Your task to perform on an android device: find photos in the google photos app Image 0: 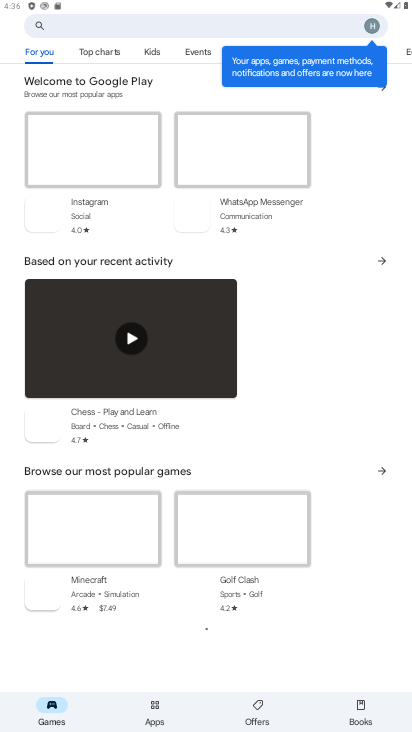
Step 0: press home button
Your task to perform on an android device: find photos in the google photos app Image 1: 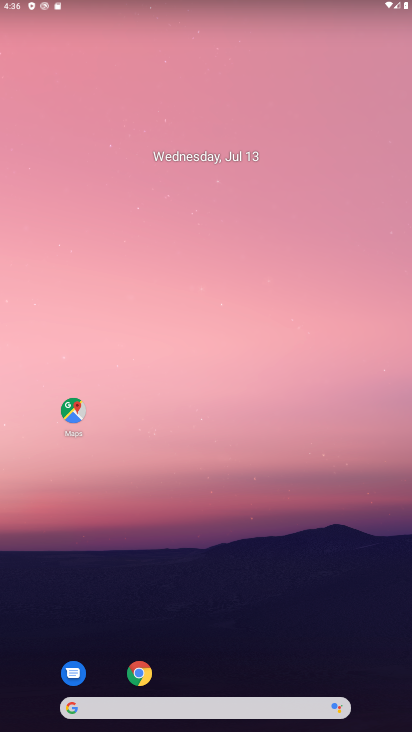
Step 1: drag from (194, 619) to (286, 49)
Your task to perform on an android device: find photos in the google photos app Image 2: 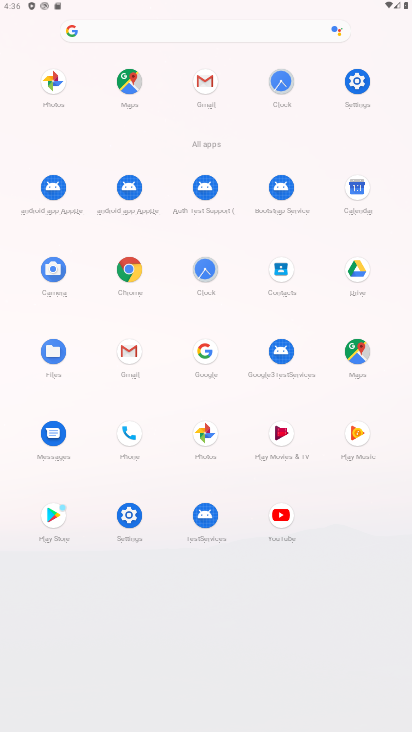
Step 2: click (198, 433)
Your task to perform on an android device: find photos in the google photos app Image 3: 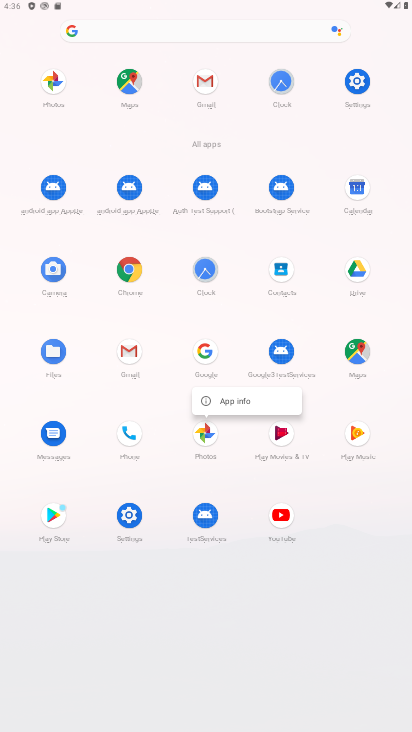
Step 3: click (199, 432)
Your task to perform on an android device: find photos in the google photos app Image 4: 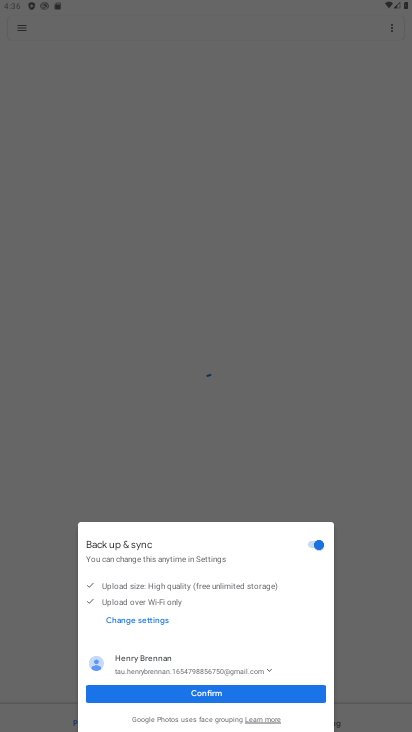
Step 4: click (210, 693)
Your task to perform on an android device: find photos in the google photos app Image 5: 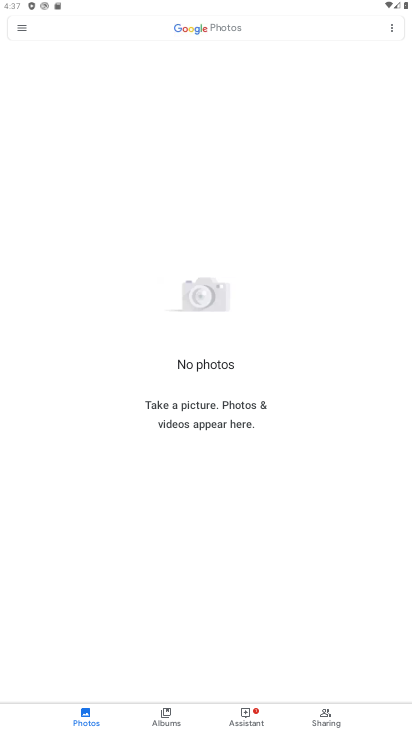
Step 5: task complete